Your task to perform on an android device: Open Google Maps Image 0: 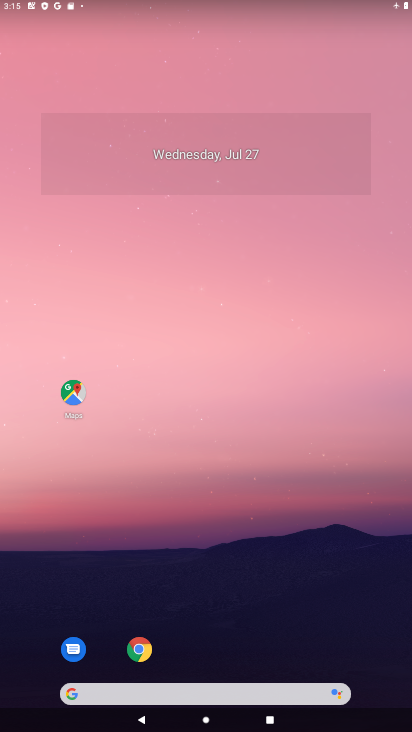
Step 0: click (64, 387)
Your task to perform on an android device: Open Google Maps Image 1: 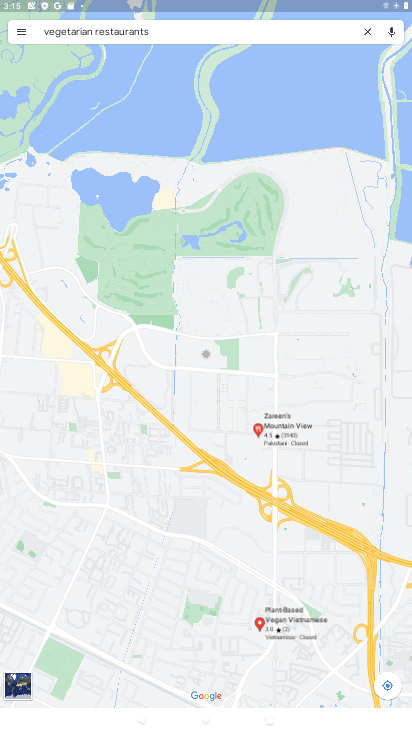
Step 1: task complete